Your task to perform on an android device: Search for top rated burger restaurants on Maps Image 0: 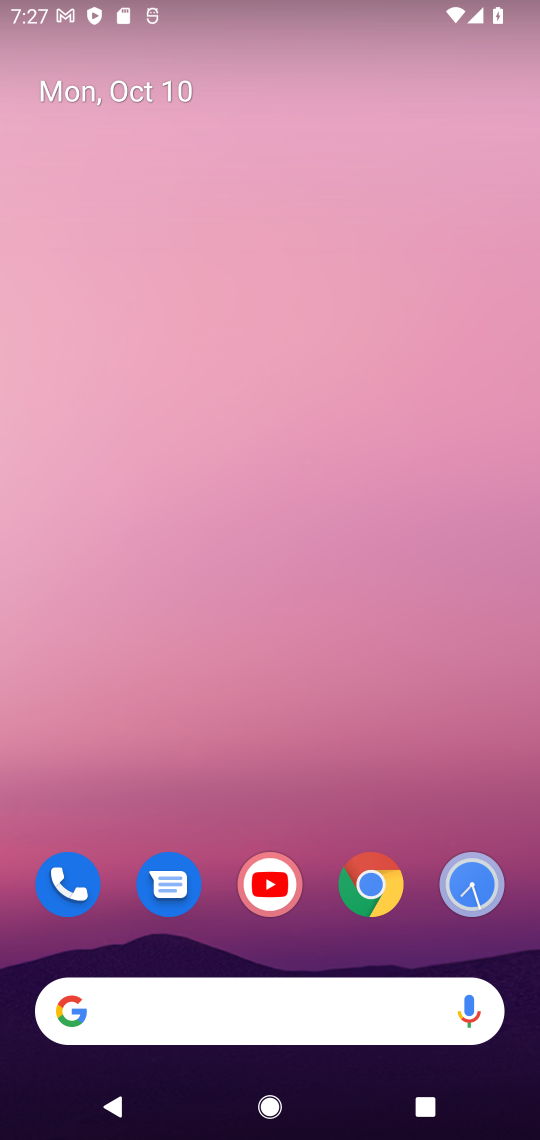
Step 0: drag from (451, 790) to (410, 263)
Your task to perform on an android device: Search for top rated burger restaurants on Maps Image 1: 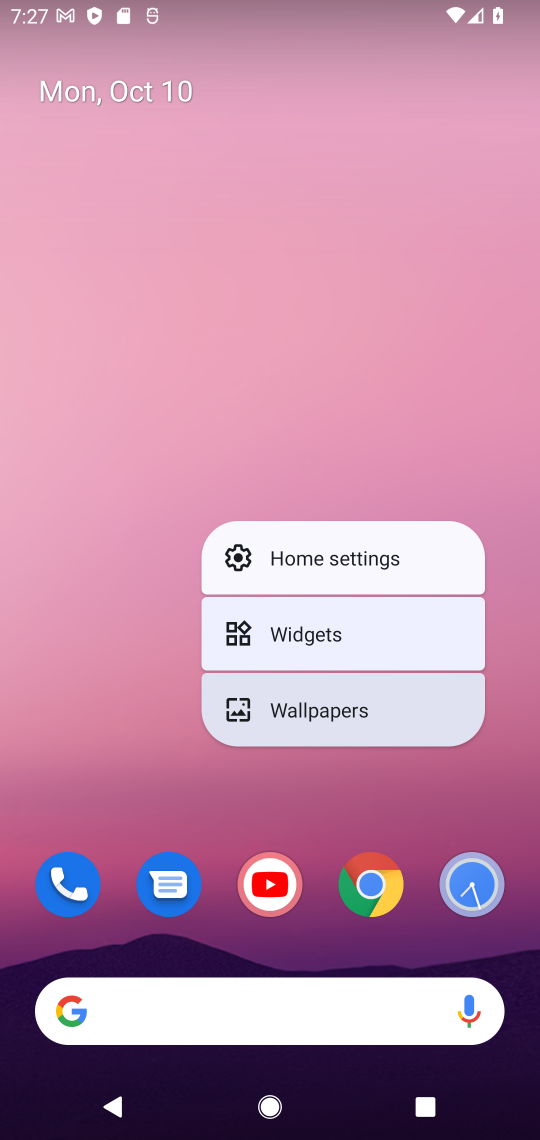
Step 1: click (526, 775)
Your task to perform on an android device: Search for top rated burger restaurants on Maps Image 2: 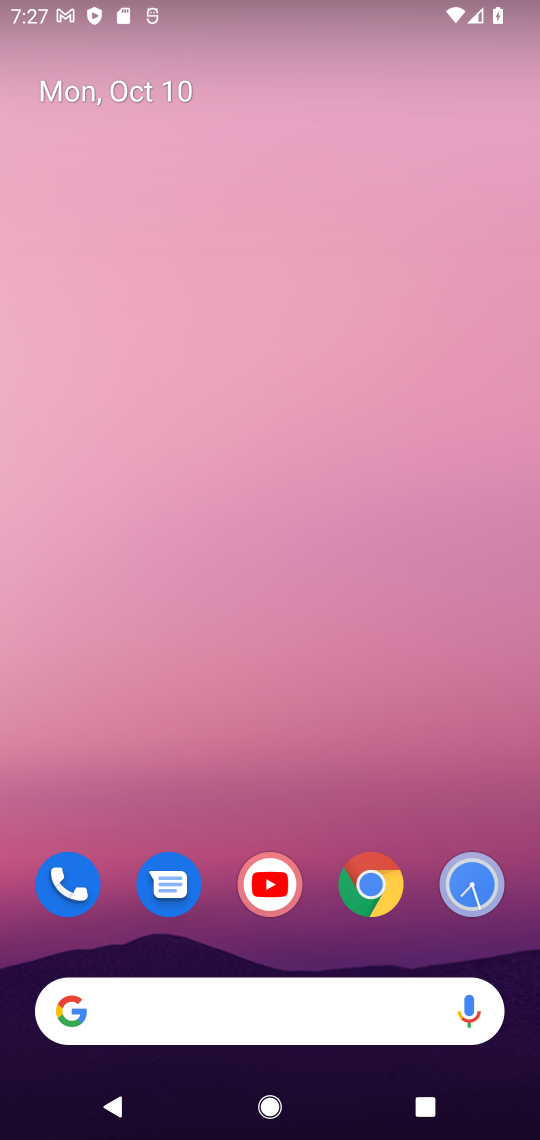
Step 2: drag from (480, 775) to (463, 101)
Your task to perform on an android device: Search for top rated burger restaurants on Maps Image 3: 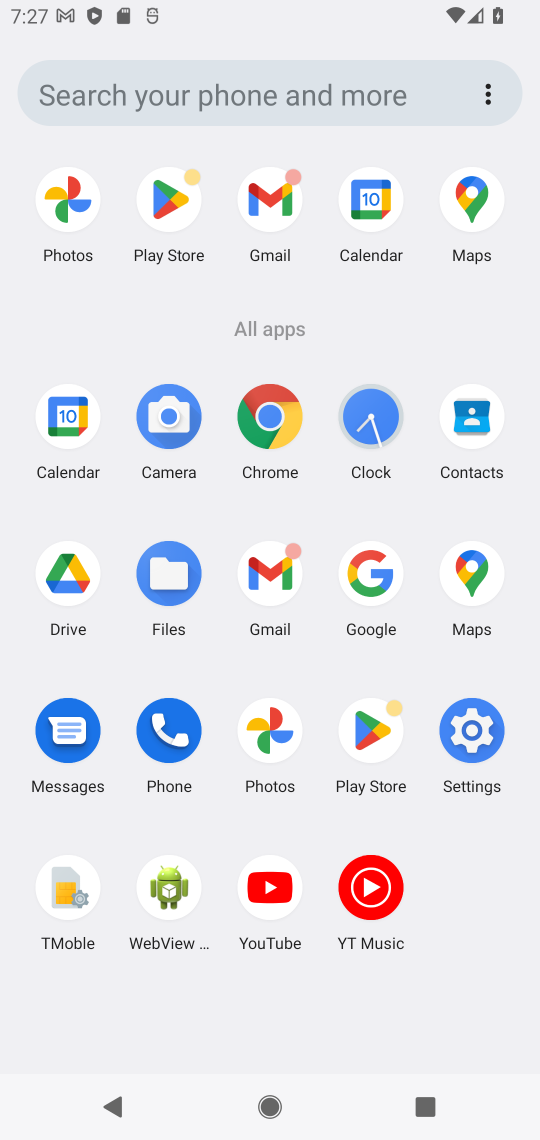
Step 3: click (473, 575)
Your task to perform on an android device: Search for top rated burger restaurants on Maps Image 4: 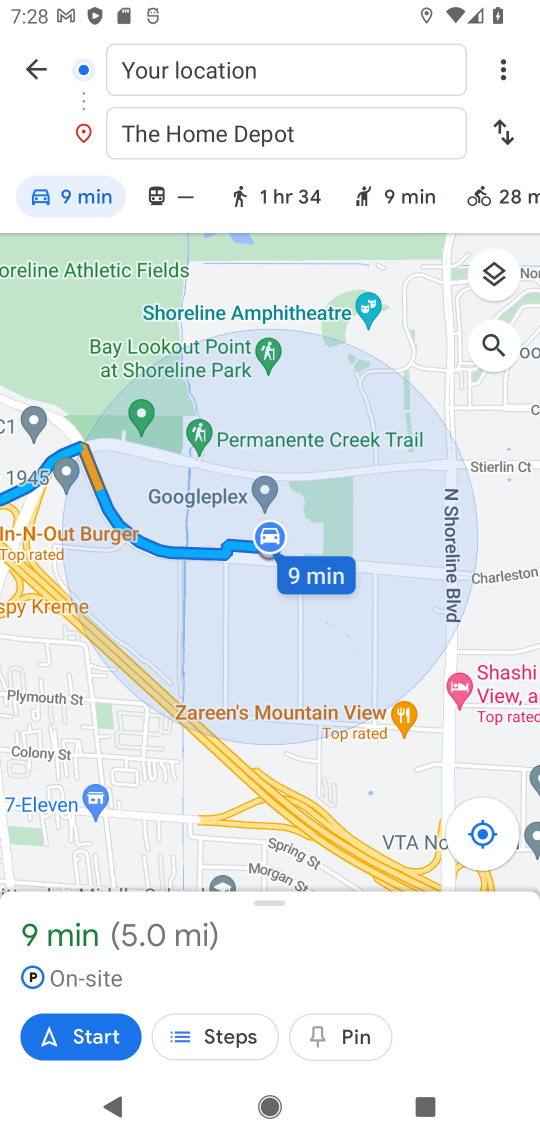
Step 4: click (27, 70)
Your task to perform on an android device: Search for top rated burger restaurants on Maps Image 5: 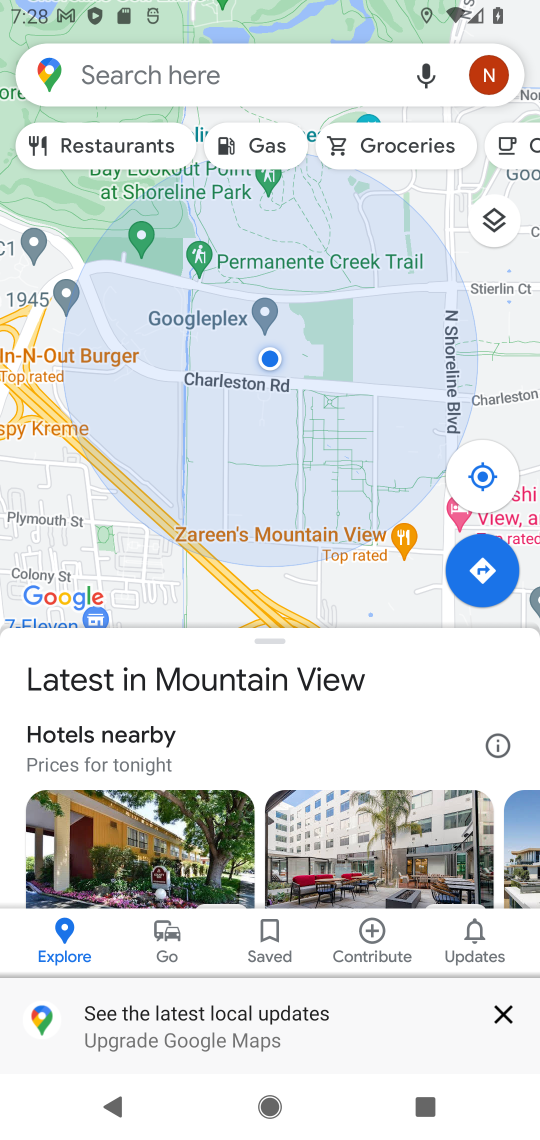
Step 5: click (346, 89)
Your task to perform on an android device: Search for top rated burger restaurants on Maps Image 6: 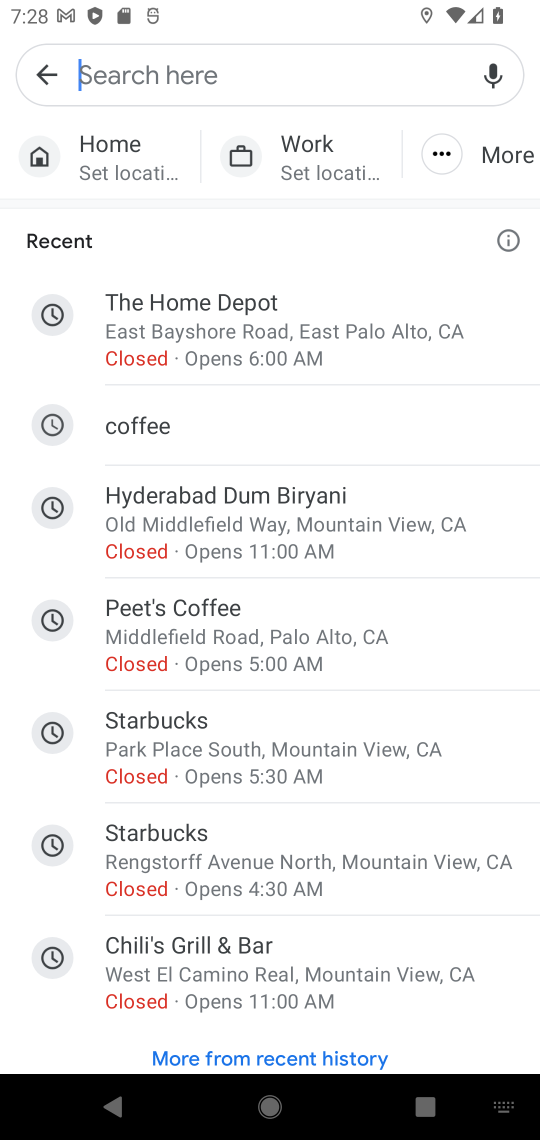
Step 6: type "top rated burger restaurants"
Your task to perform on an android device: Search for top rated burger restaurants on Maps Image 7: 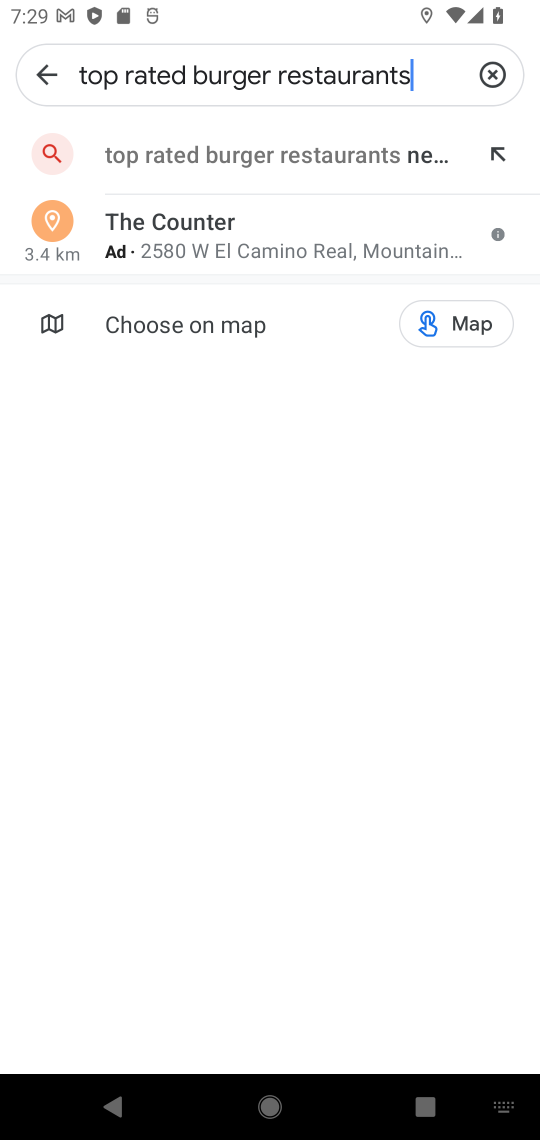
Step 7: click (350, 139)
Your task to perform on an android device: Search for top rated burger restaurants on Maps Image 8: 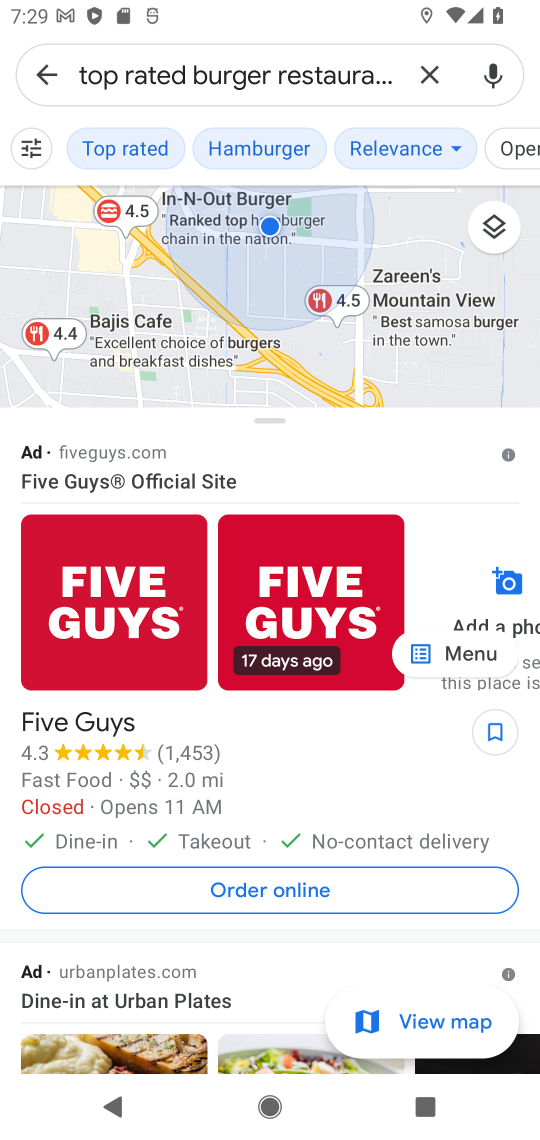
Step 8: task complete